Your task to perform on an android device: toggle sleep mode Image 0: 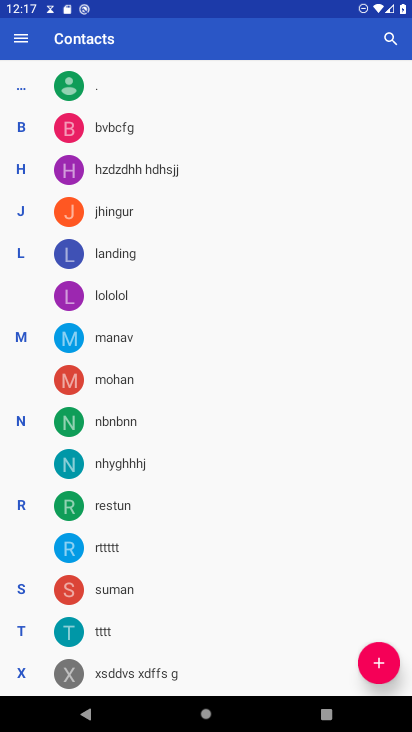
Step 0: press home button
Your task to perform on an android device: toggle sleep mode Image 1: 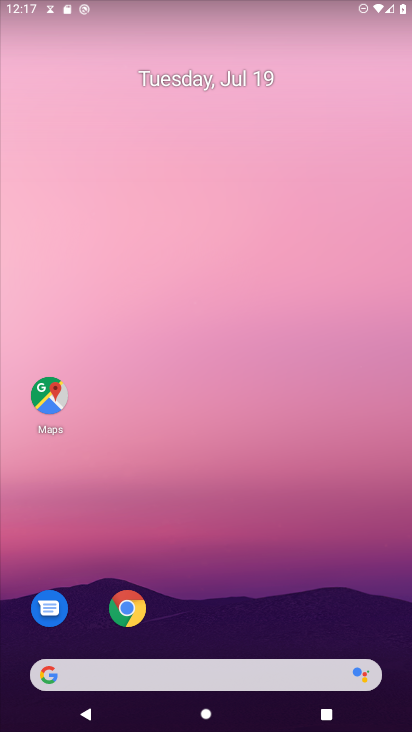
Step 1: drag from (262, 686) to (345, 79)
Your task to perform on an android device: toggle sleep mode Image 2: 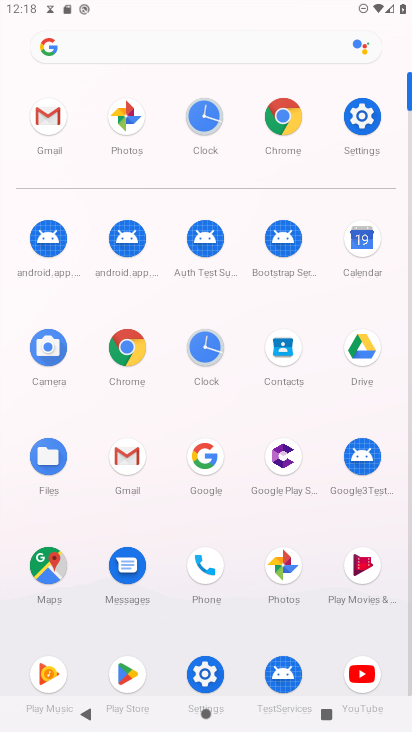
Step 2: click (369, 114)
Your task to perform on an android device: toggle sleep mode Image 3: 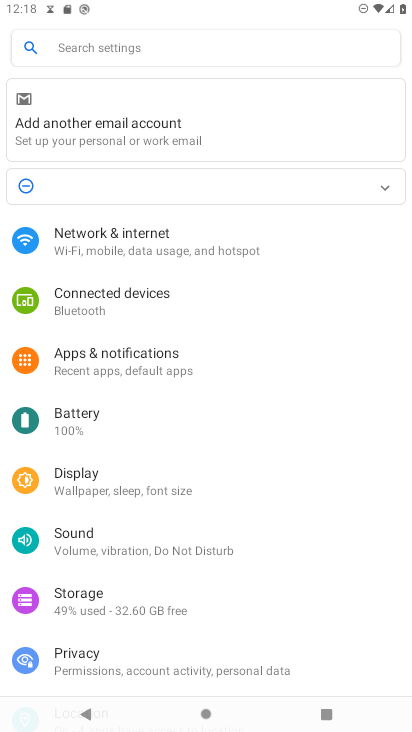
Step 3: click (167, 483)
Your task to perform on an android device: toggle sleep mode Image 4: 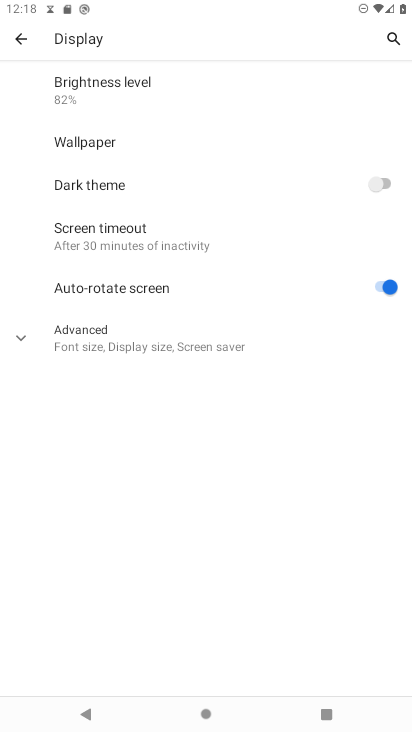
Step 4: task complete